Your task to perform on an android device: add a label to a message in the gmail app Image 0: 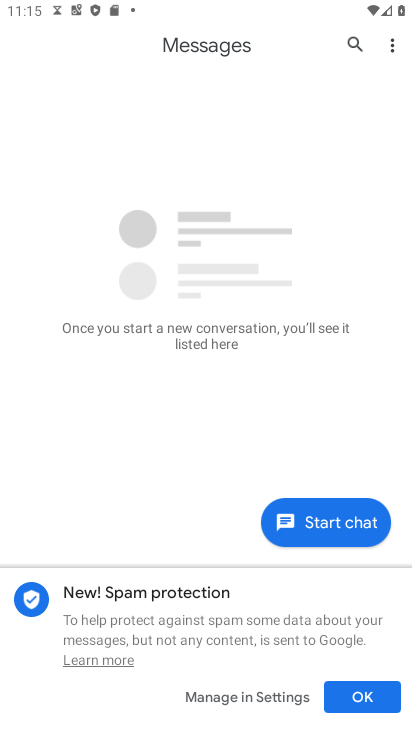
Step 0: press home button
Your task to perform on an android device: add a label to a message in the gmail app Image 1: 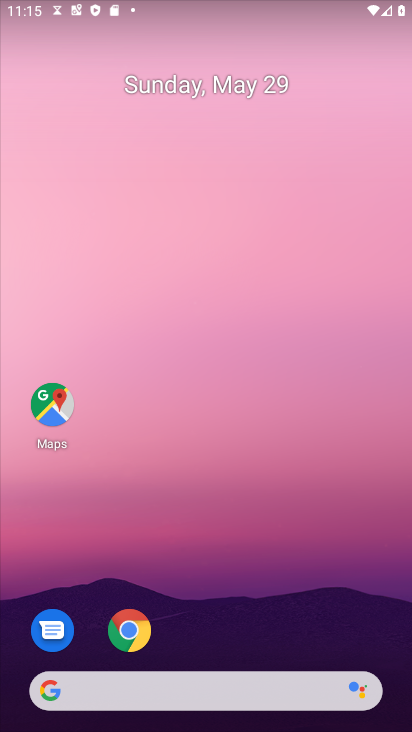
Step 1: drag from (274, 600) to (185, 158)
Your task to perform on an android device: add a label to a message in the gmail app Image 2: 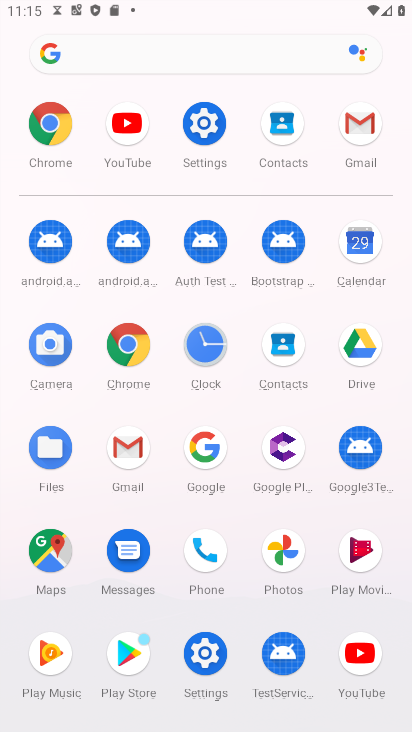
Step 2: click (354, 134)
Your task to perform on an android device: add a label to a message in the gmail app Image 3: 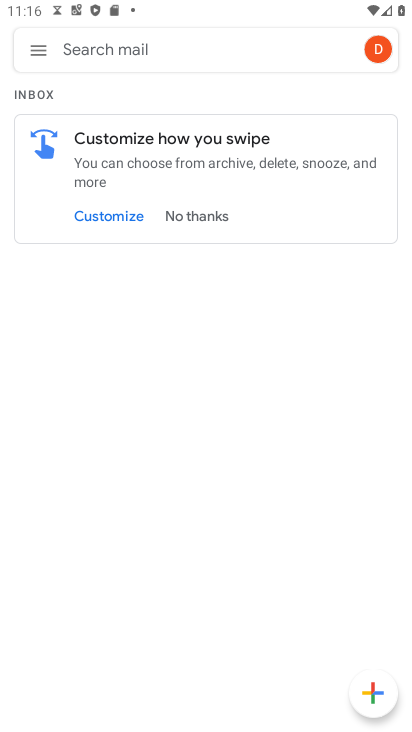
Step 3: click (33, 54)
Your task to perform on an android device: add a label to a message in the gmail app Image 4: 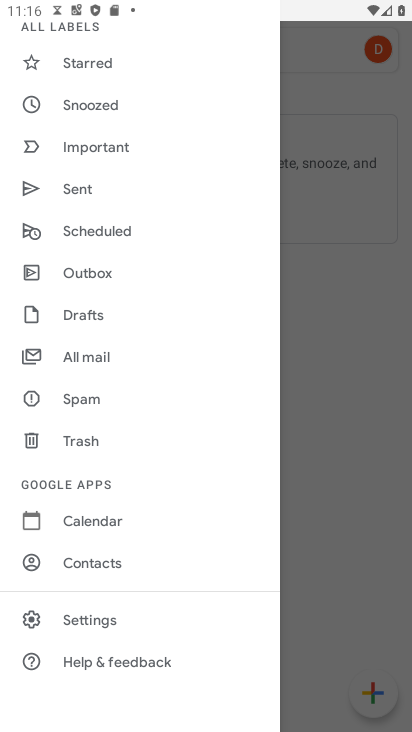
Step 4: drag from (161, 530) to (170, 631)
Your task to perform on an android device: add a label to a message in the gmail app Image 5: 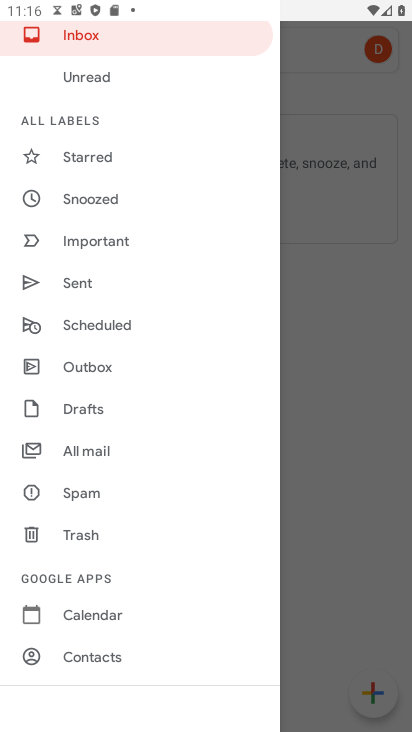
Step 5: click (87, 450)
Your task to perform on an android device: add a label to a message in the gmail app Image 6: 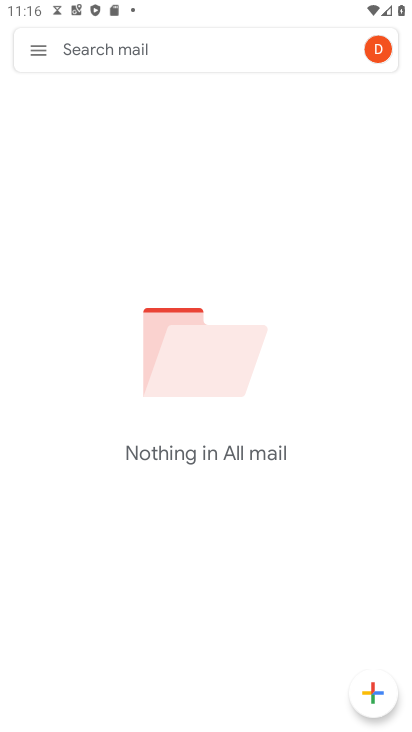
Step 6: task complete